Your task to perform on an android device: What's the weather going to be tomorrow? Image 0: 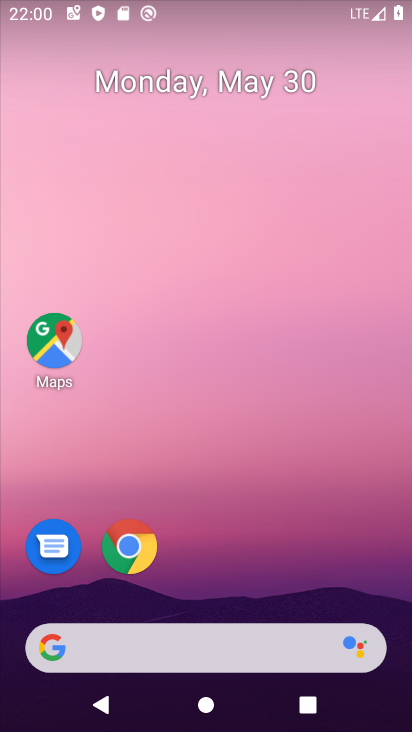
Step 0: drag from (293, 580) to (316, 138)
Your task to perform on an android device: What's the weather going to be tomorrow? Image 1: 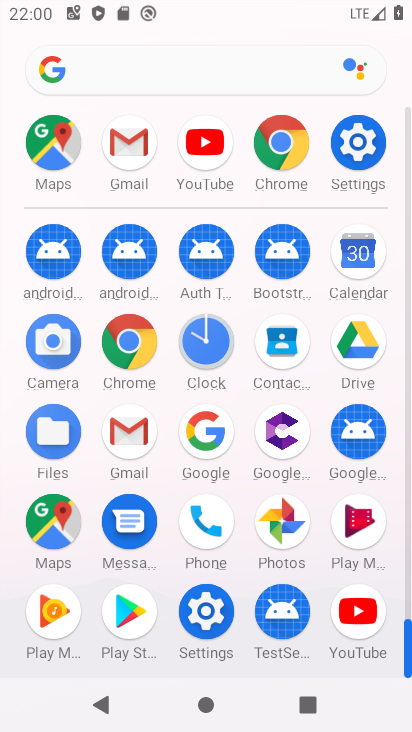
Step 1: click (143, 354)
Your task to perform on an android device: What's the weather going to be tomorrow? Image 2: 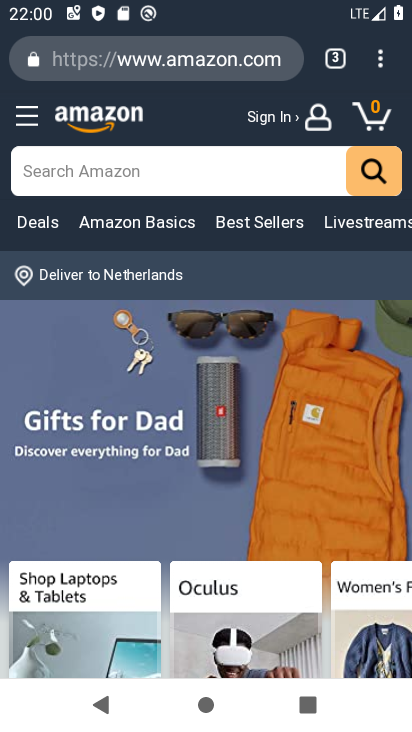
Step 2: click (220, 72)
Your task to perform on an android device: What's the weather going to be tomorrow? Image 3: 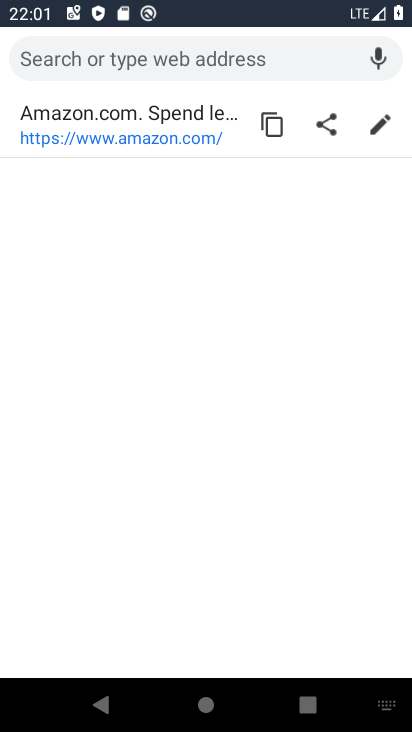
Step 3: type "what's the weather going to be "
Your task to perform on an android device: What's the weather going to be tomorrow? Image 4: 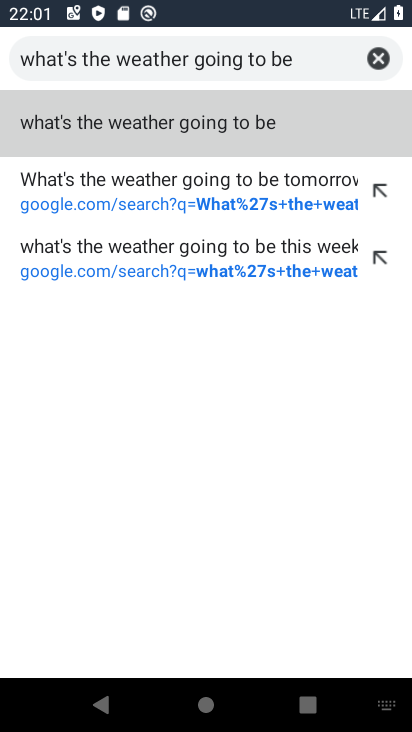
Step 4: click (244, 212)
Your task to perform on an android device: What's the weather going to be tomorrow? Image 5: 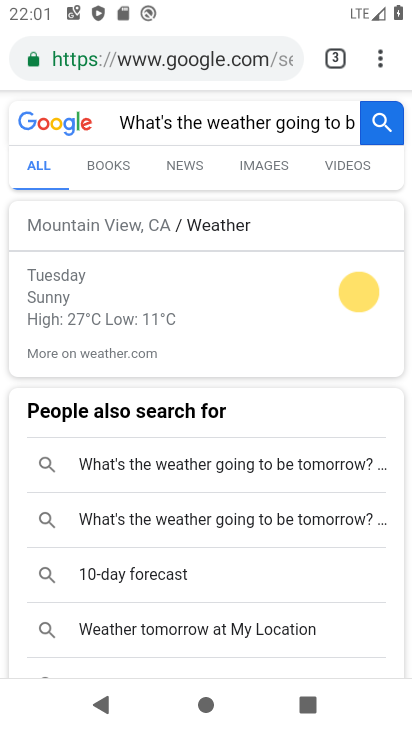
Step 5: task complete